Your task to perform on an android device: choose inbox layout in the gmail app Image 0: 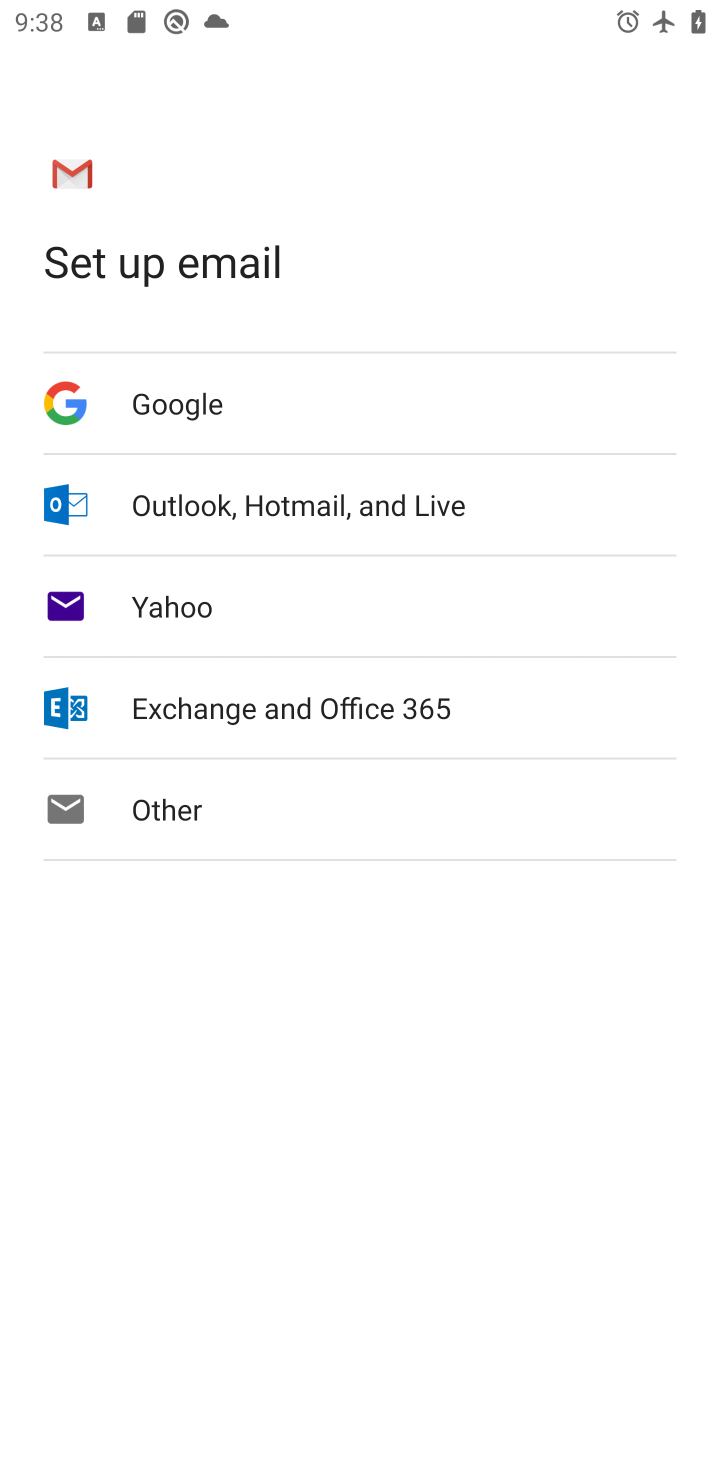
Step 0: press home button
Your task to perform on an android device: choose inbox layout in the gmail app Image 1: 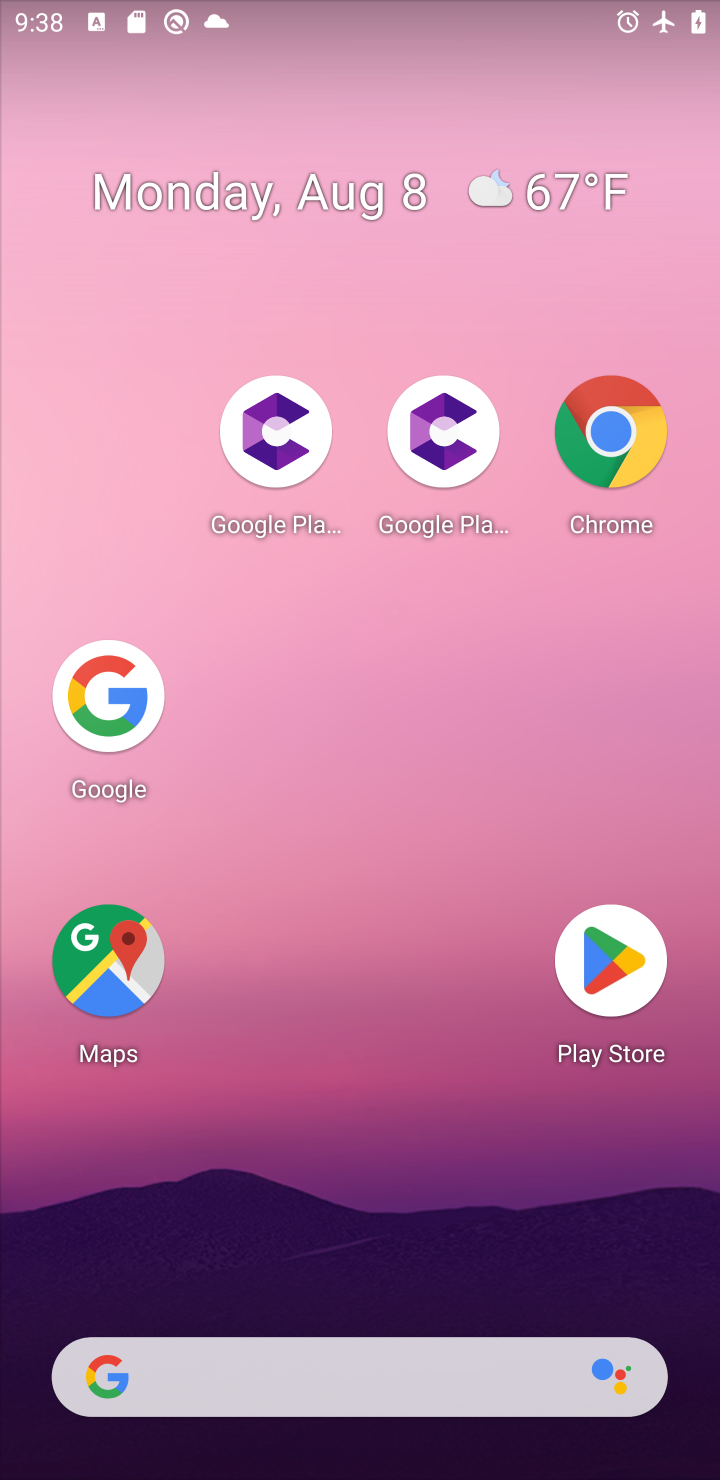
Step 1: click (249, 1315)
Your task to perform on an android device: choose inbox layout in the gmail app Image 2: 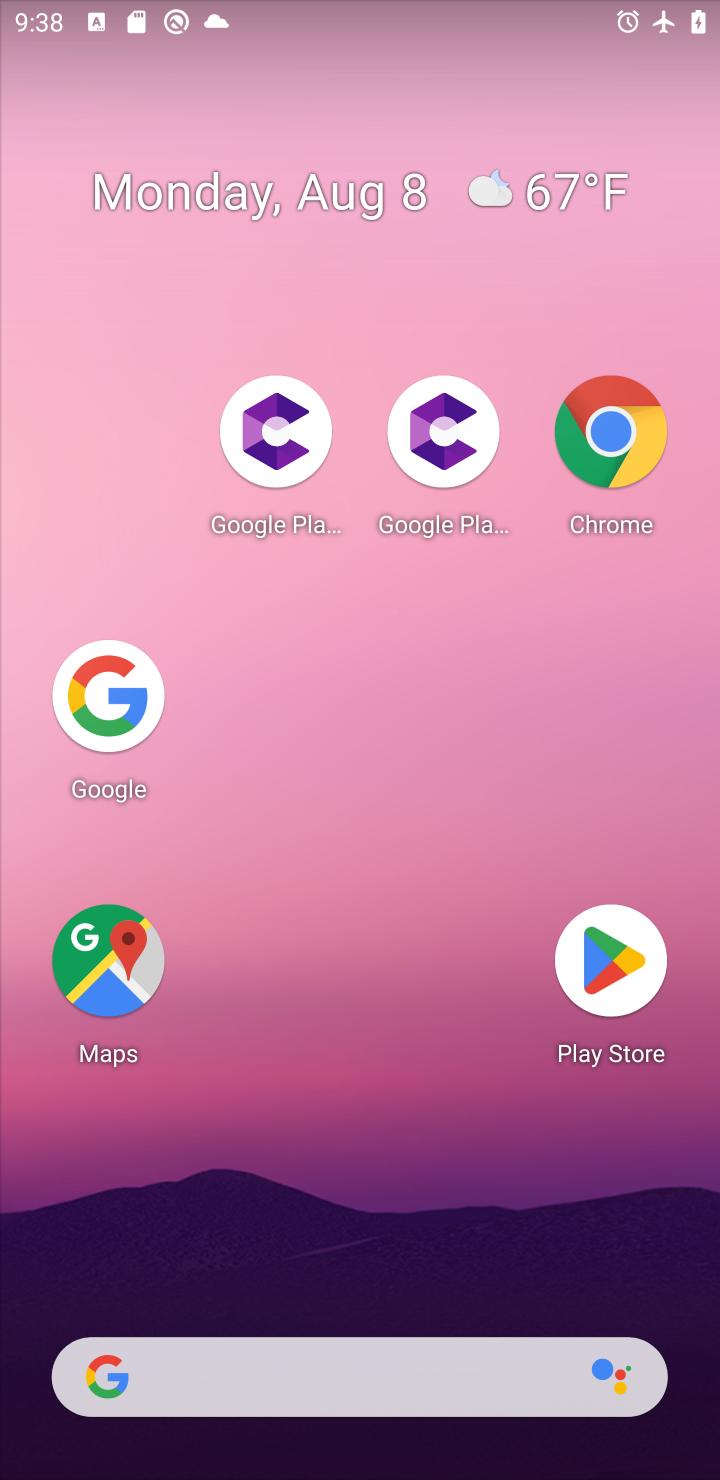
Step 2: drag from (249, 1315) to (518, 228)
Your task to perform on an android device: choose inbox layout in the gmail app Image 3: 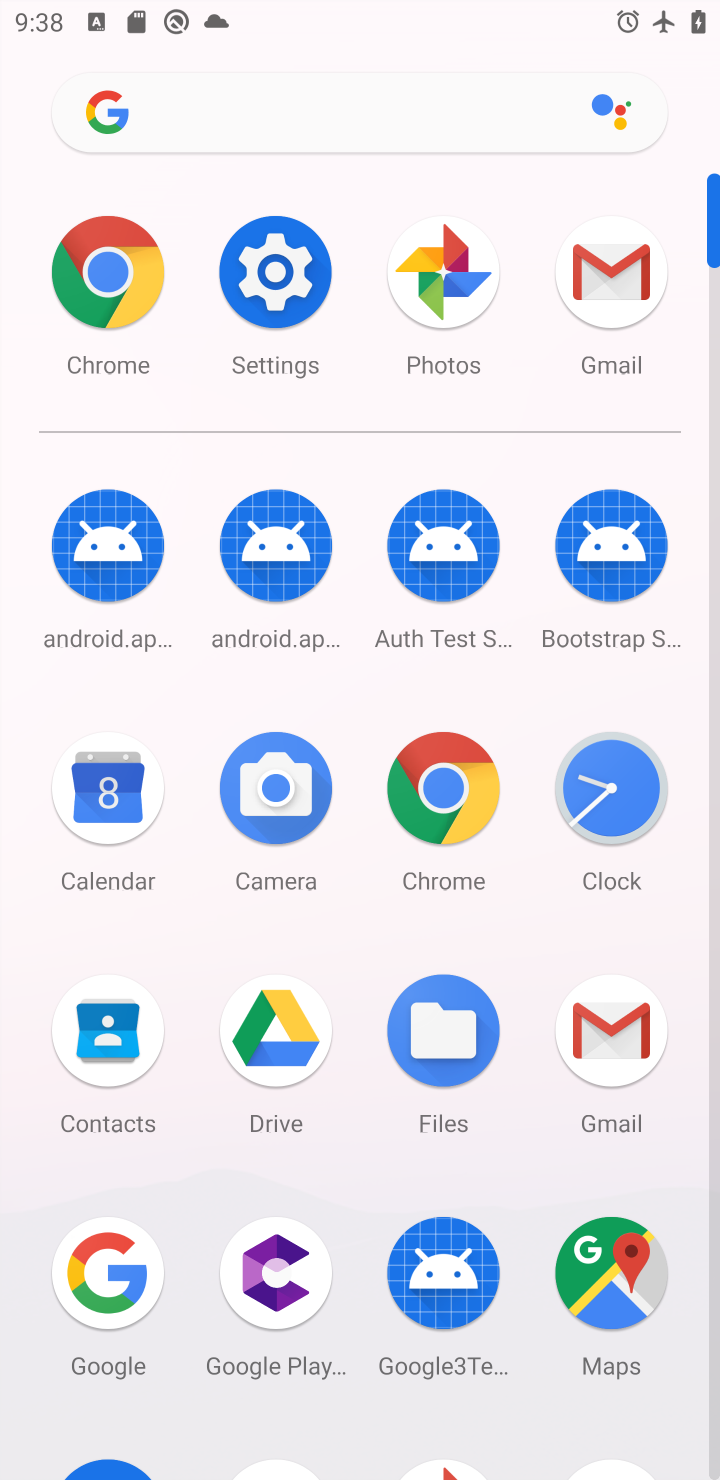
Step 3: click (605, 267)
Your task to perform on an android device: choose inbox layout in the gmail app Image 4: 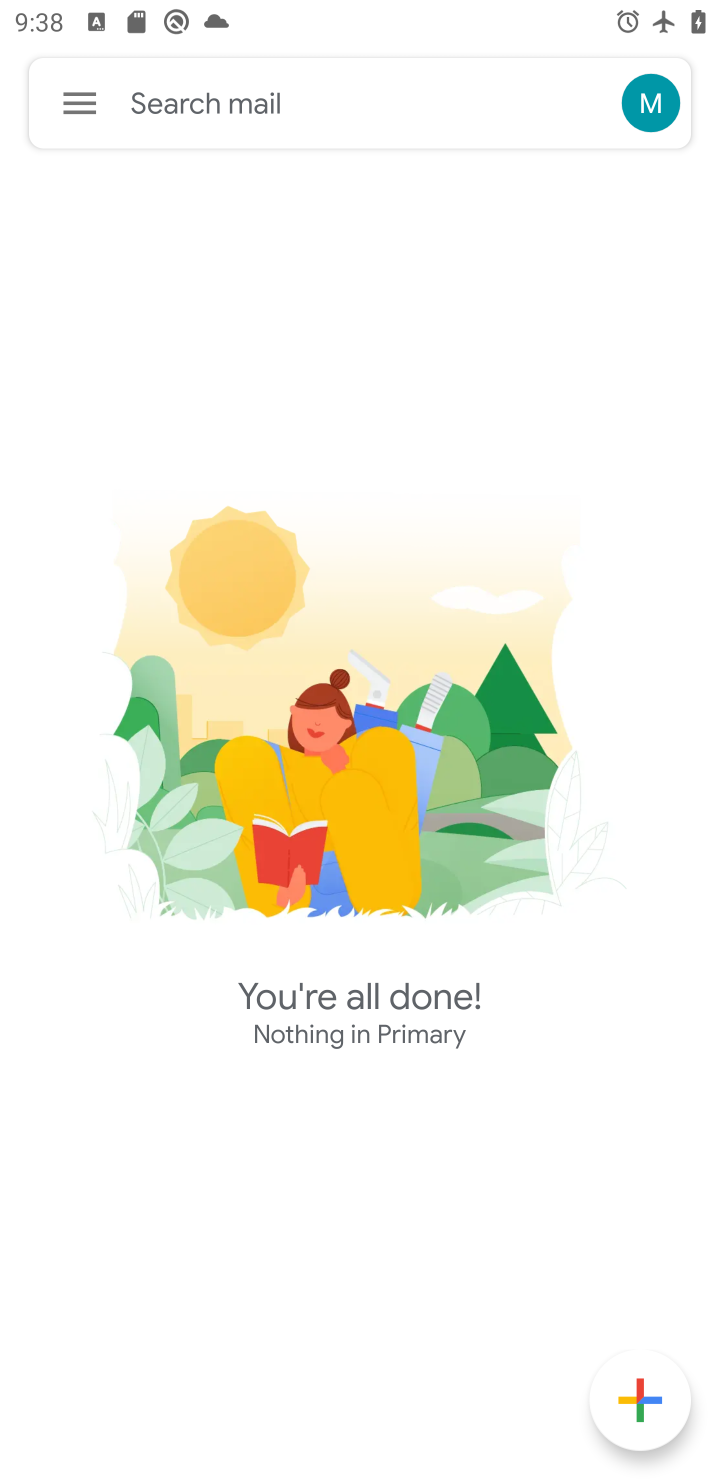
Step 4: click (88, 108)
Your task to perform on an android device: choose inbox layout in the gmail app Image 5: 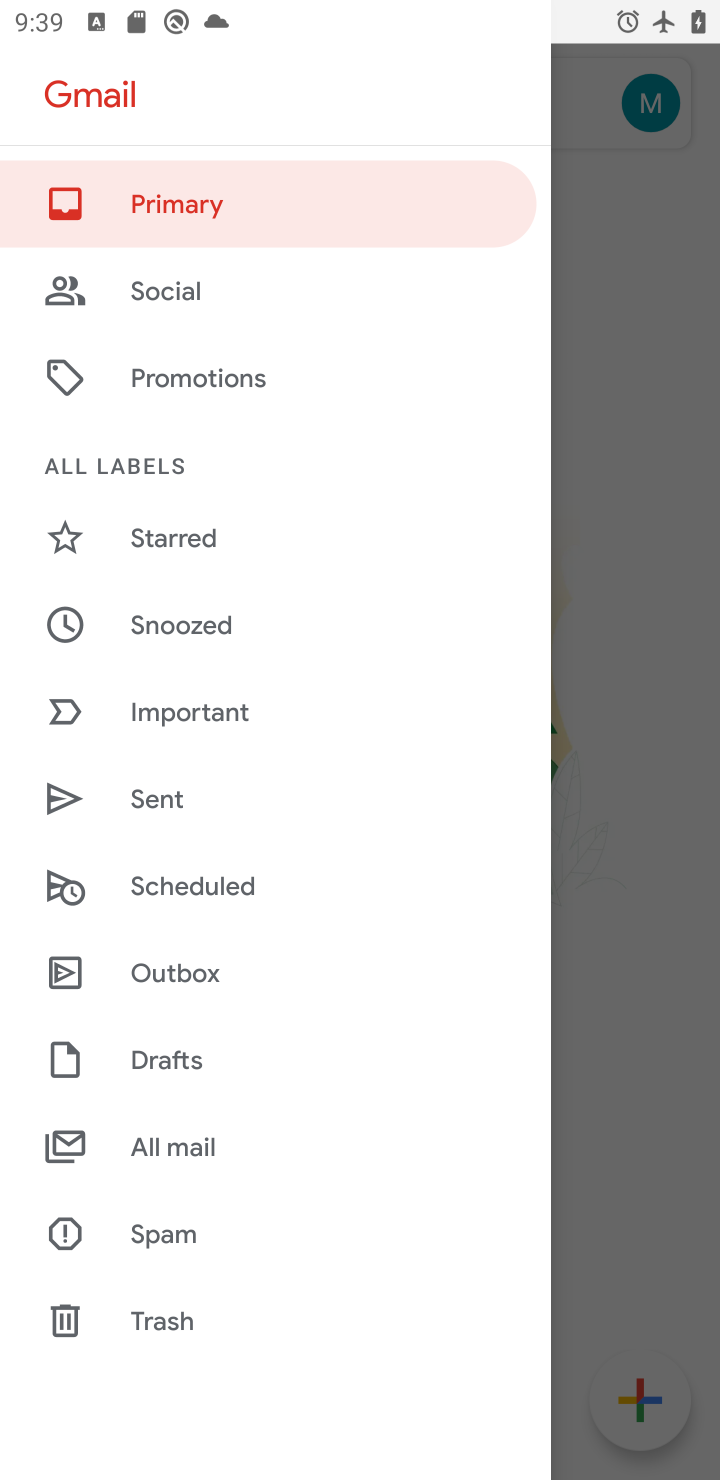
Step 5: drag from (308, 1057) to (404, 390)
Your task to perform on an android device: choose inbox layout in the gmail app Image 6: 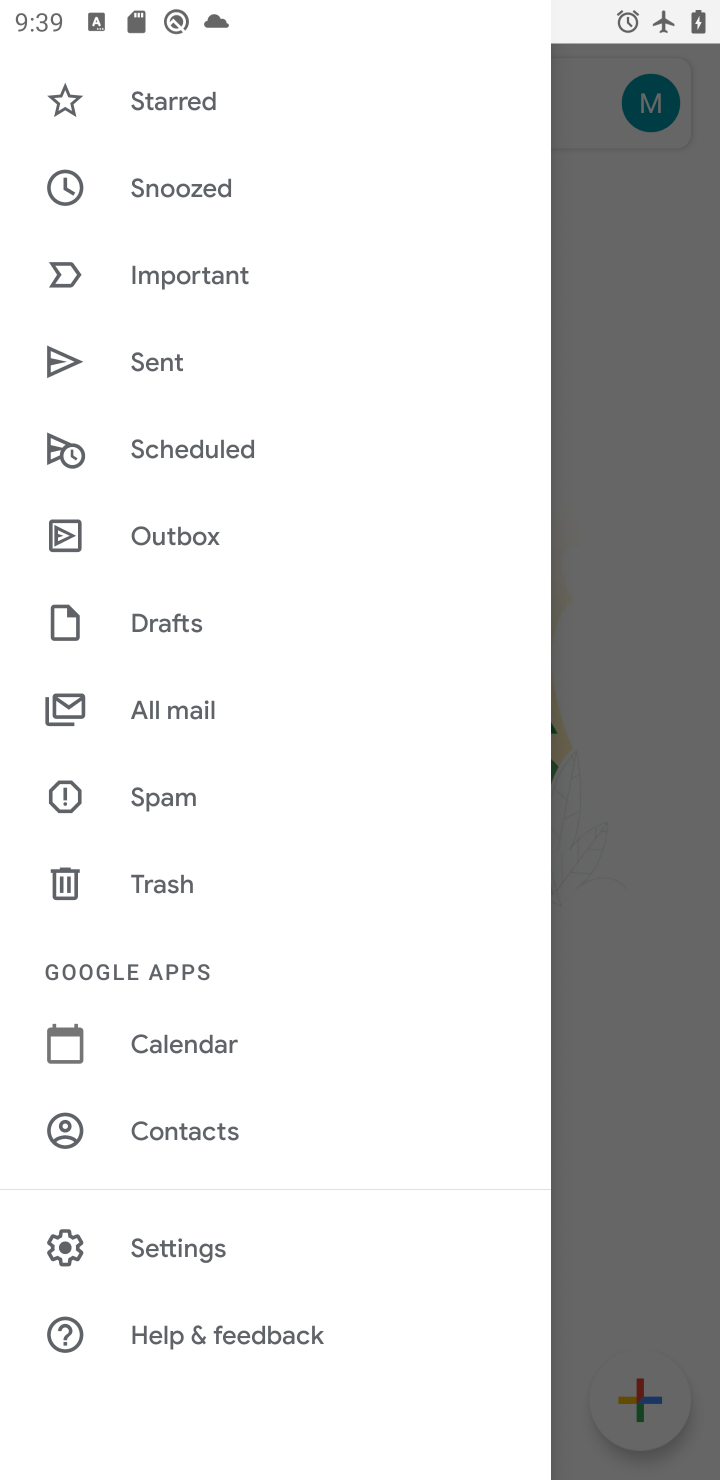
Step 6: click (289, 1258)
Your task to perform on an android device: choose inbox layout in the gmail app Image 7: 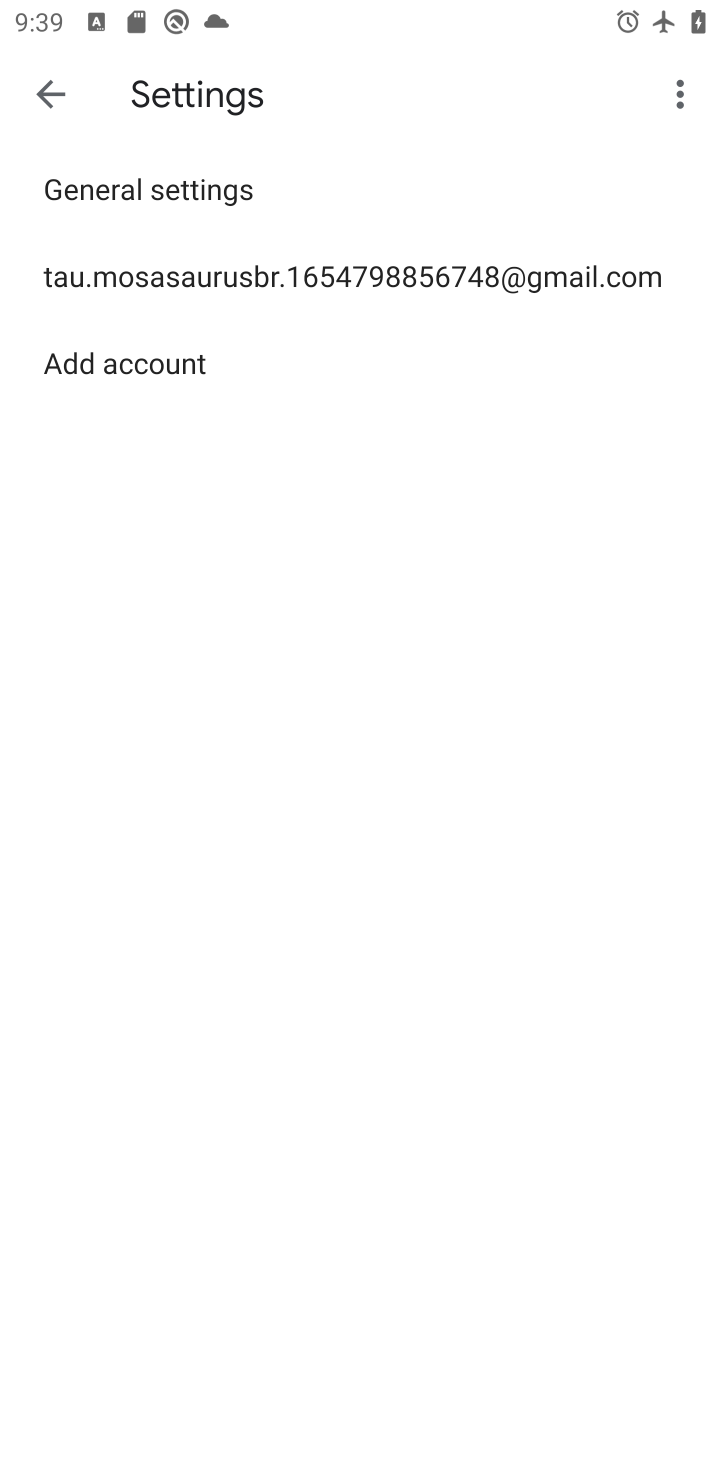
Step 7: click (365, 294)
Your task to perform on an android device: choose inbox layout in the gmail app Image 8: 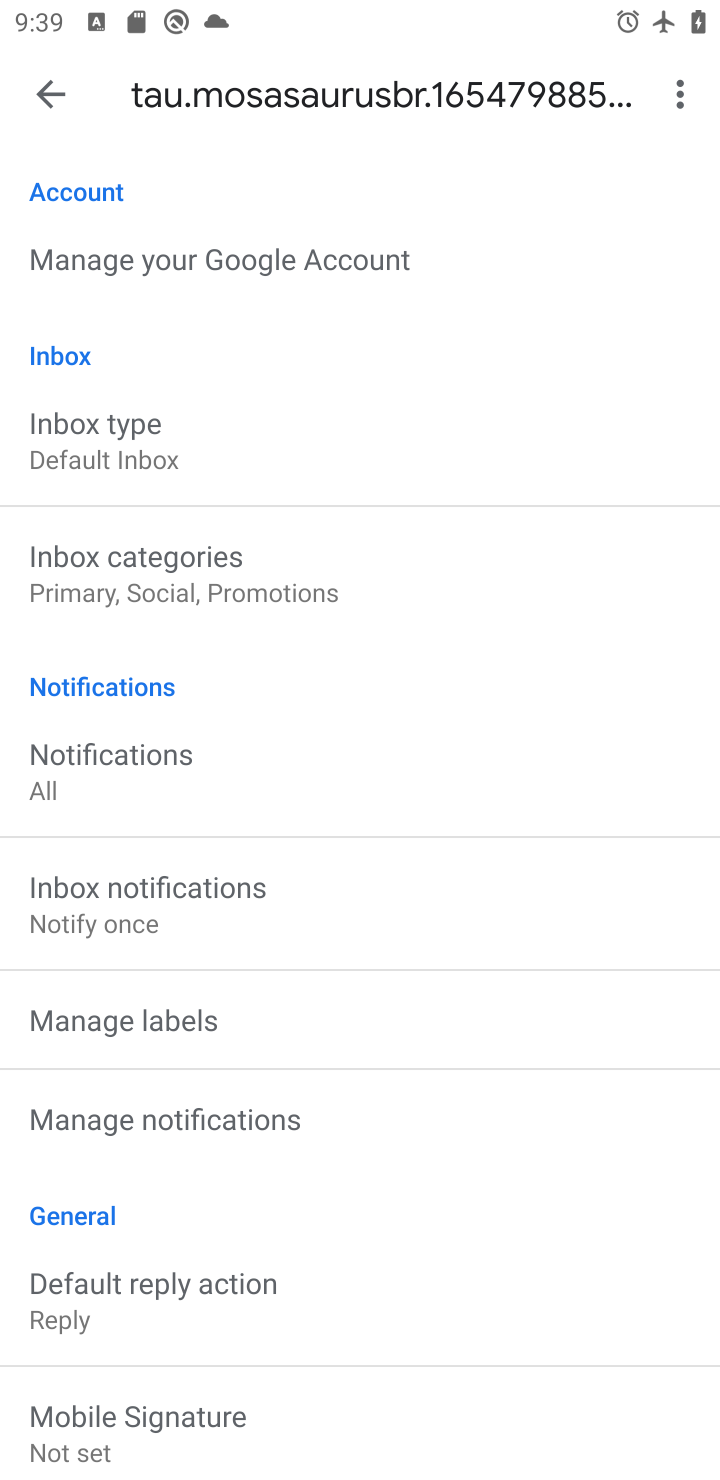
Step 8: click (225, 454)
Your task to perform on an android device: choose inbox layout in the gmail app Image 9: 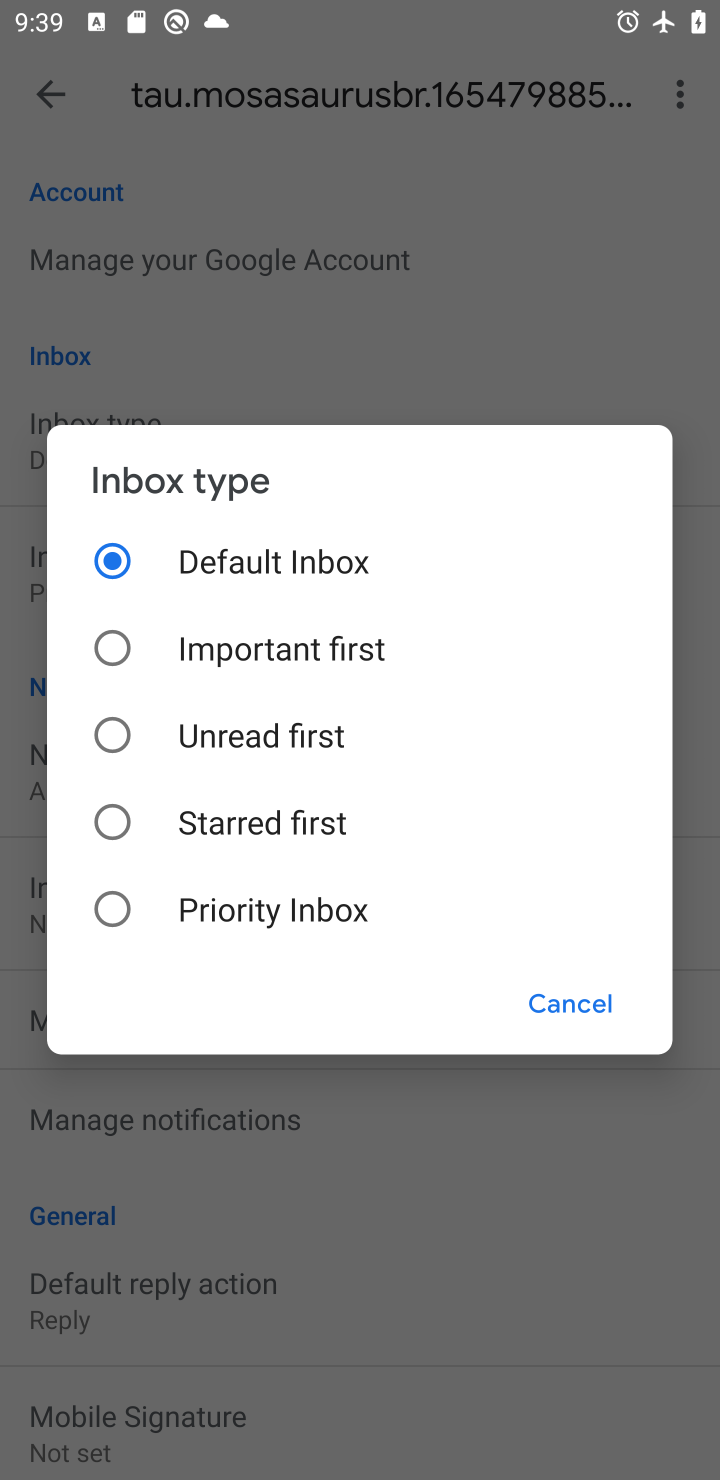
Step 9: click (336, 798)
Your task to perform on an android device: choose inbox layout in the gmail app Image 10: 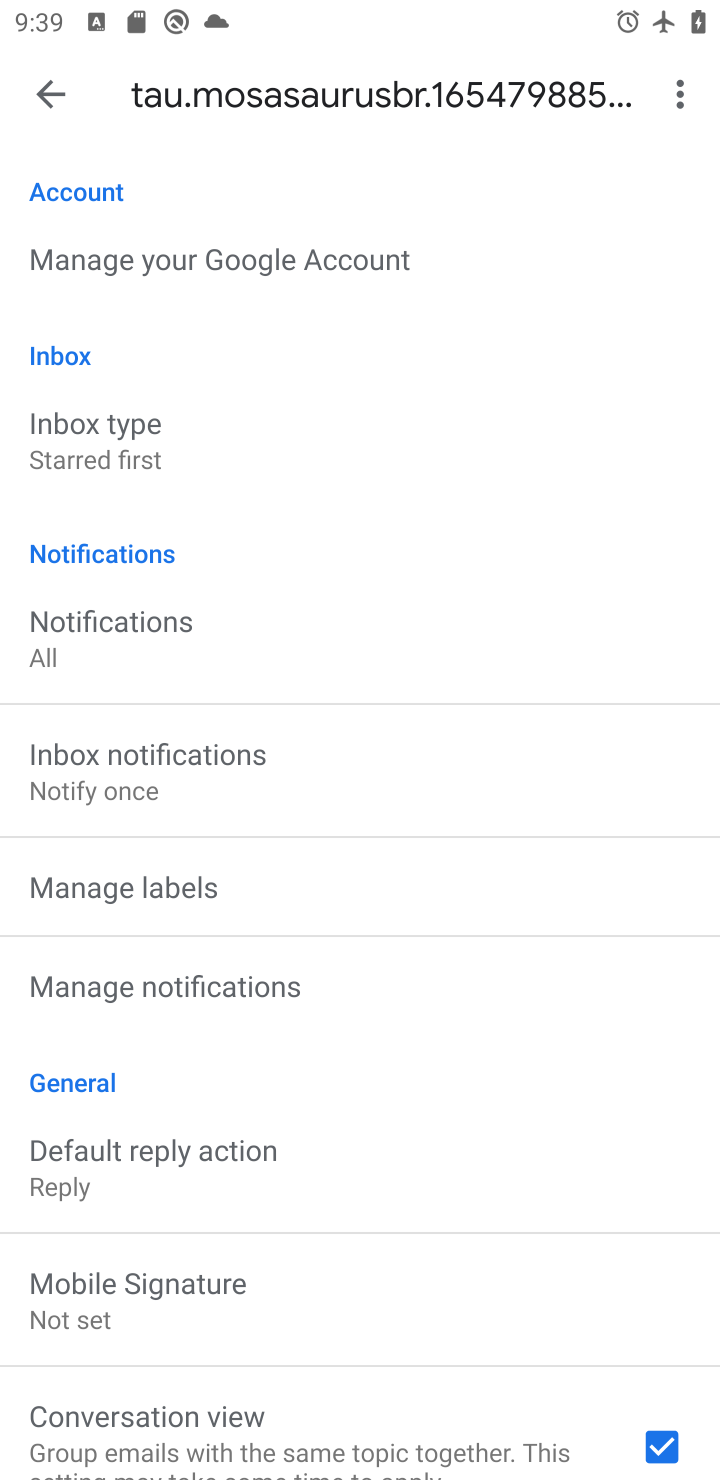
Step 10: task complete